Your task to perform on an android device: change text size in settings app Image 0: 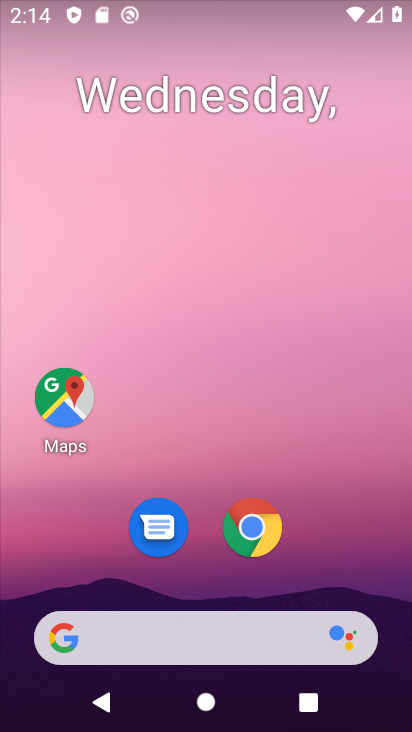
Step 0: drag from (320, 48) to (267, 33)
Your task to perform on an android device: change text size in settings app Image 1: 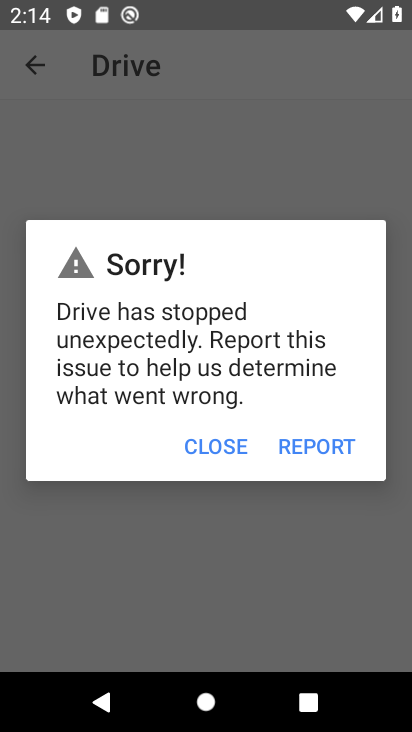
Step 1: press home button
Your task to perform on an android device: change text size in settings app Image 2: 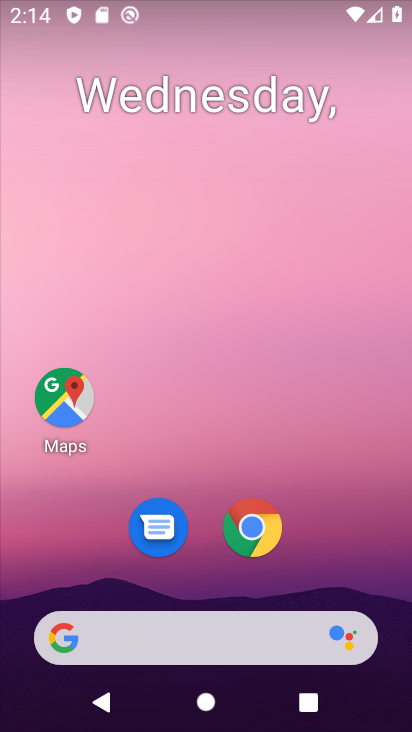
Step 2: drag from (334, 566) to (276, 268)
Your task to perform on an android device: change text size in settings app Image 3: 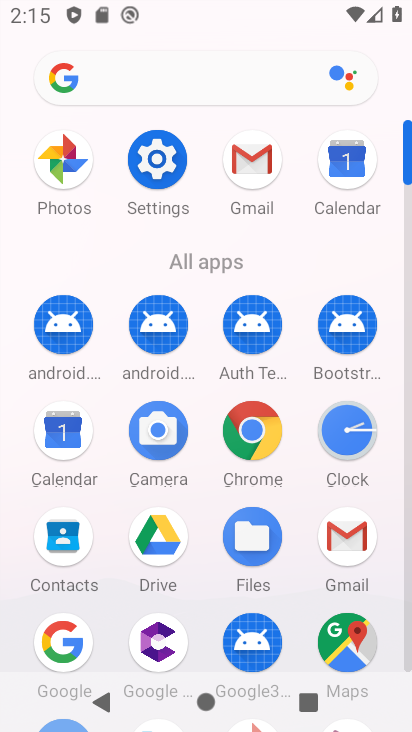
Step 3: click (157, 159)
Your task to perform on an android device: change text size in settings app Image 4: 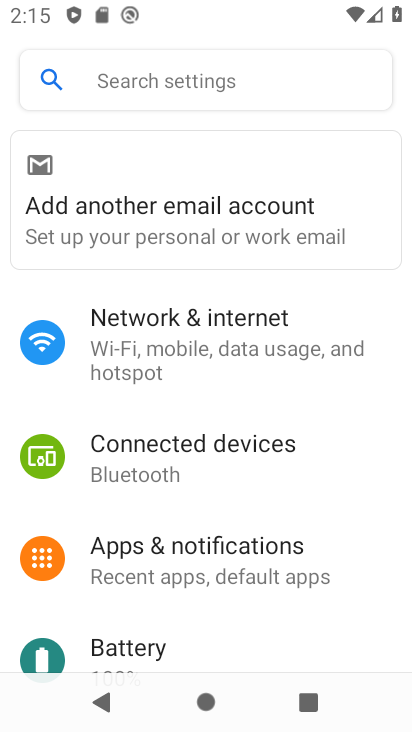
Step 4: drag from (190, 405) to (210, 287)
Your task to perform on an android device: change text size in settings app Image 5: 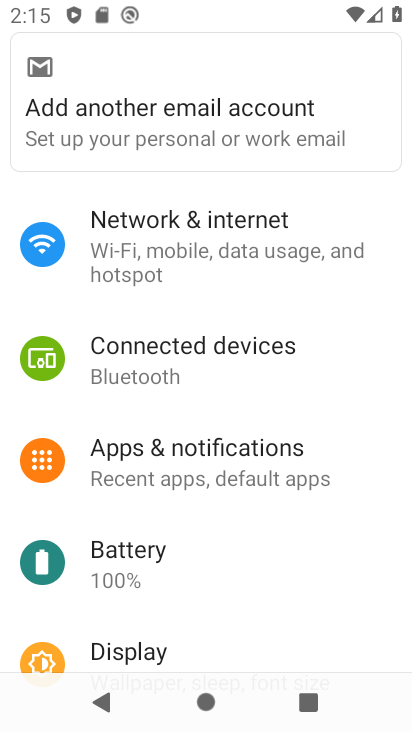
Step 5: drag from (175, 409) to (207, 311)
Your task to perform on an android device: change text size in settings app Image 6: 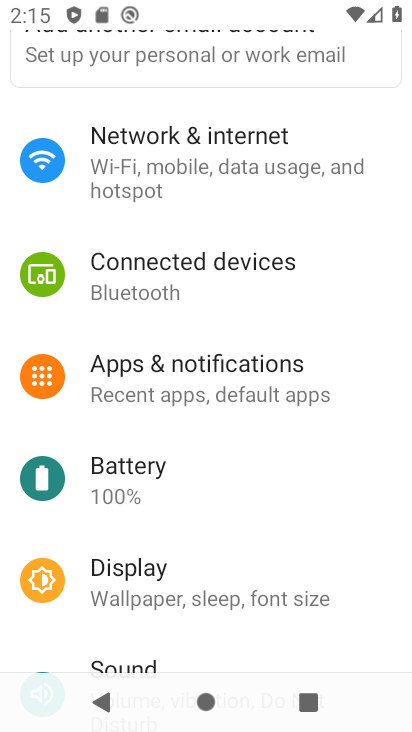
Step 6: drag from (175, 428) to (217, 338)
Your task to perform on an android device: change text size in settings app Image 7: 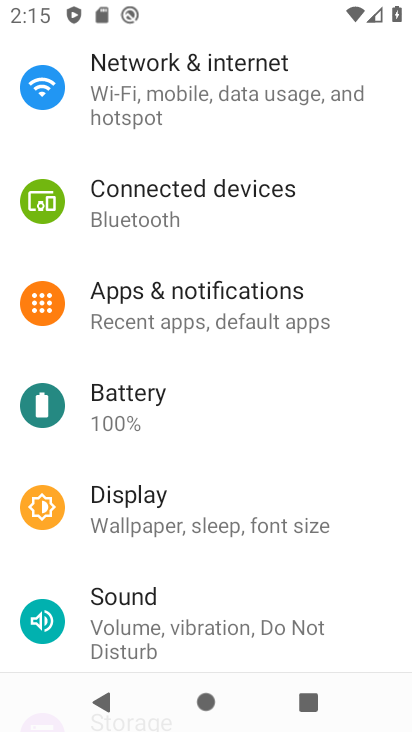
Step 7: drag from (145, 448) to (248, 329)
Your task to perform on an android device: change text size in settings app Image 8: 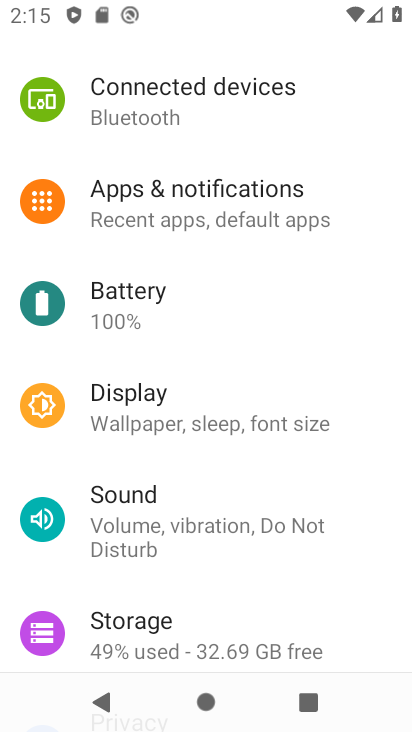
Step 8: drag from (155, 456) to (244, 344)
Your task to perform on an android device: change text size in settings app Image 9: 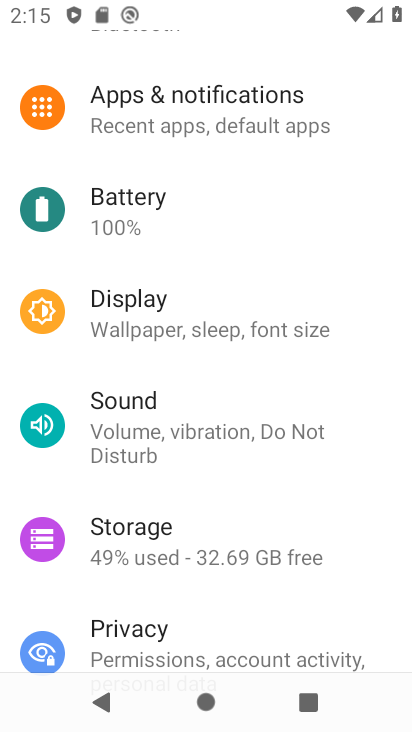
Step 9: drag from (151, 485) to (233, 368)
Your task to perform on an android device: change text size in settings app Image 10: 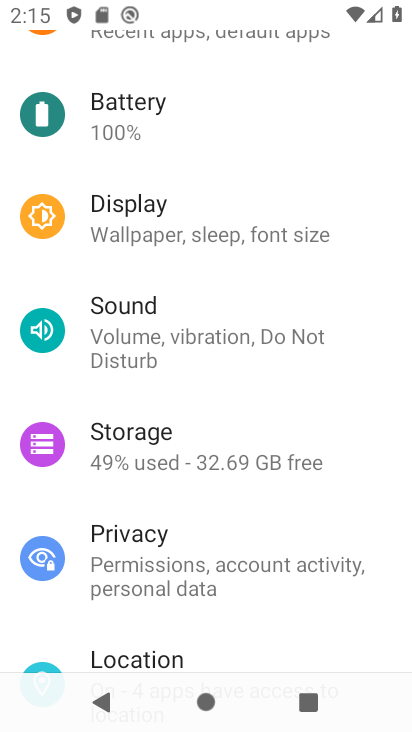
Step 10: drag from (145, 496) to (229, 392)
Your task to perform on an android device: change text size in settings app Image 11: 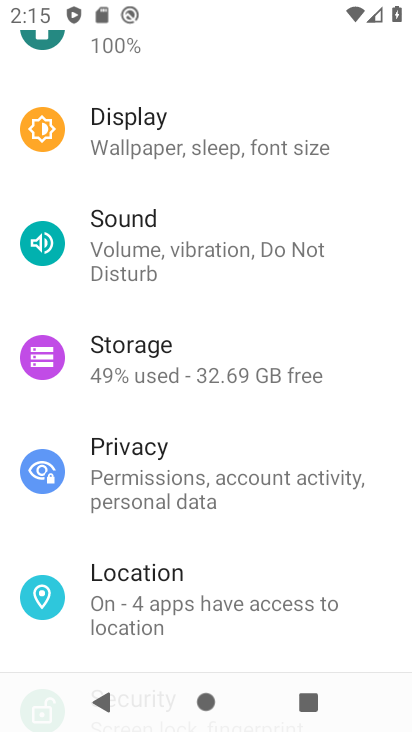
Step 11: click (209, 334)
Your task to perform on an android device: change text size in settings app Image 12: 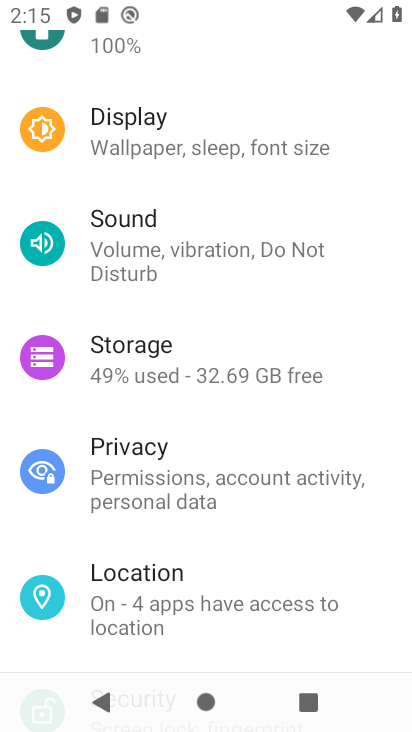
Step 12: drag from (128, 538) to (200, 361)
Your task to perform on an android device: change text size in settings app Image 13: 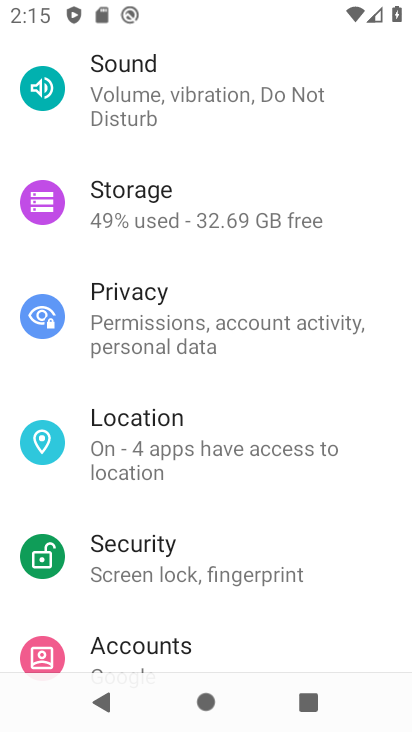
Step 13: drag from (111, 519) to (191, 356)
Your task to perform on an android device: change text size in settings app Image 14: 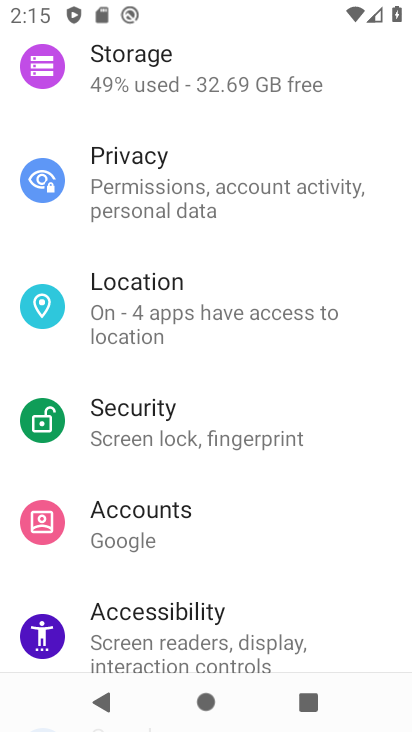
Step 14: drag from (154, 477) to (194, 338)
Your task to perform on an android device: change text size in settings app Image 15: 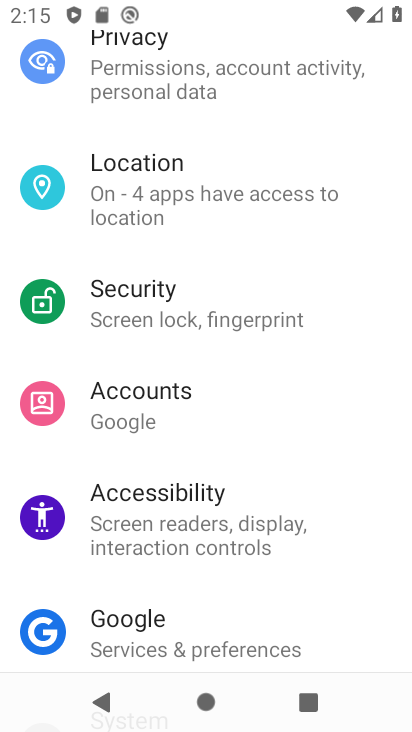
Step 15: click (179, 494)
Your task to perform on an android device: change text size in settings app Image 16: 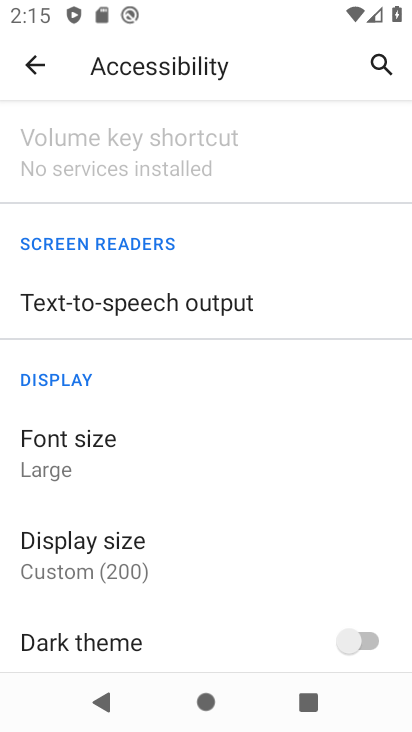
Step 16: click (69, 432)
Your task to perform on an android device: change text size in settings app Image 17: 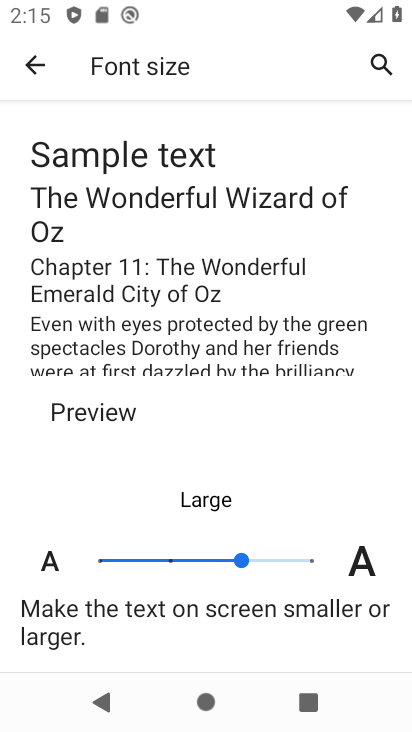
Step 17: click (166, 560)
Your task to perform on an android device: change text size in settings app Image 18: 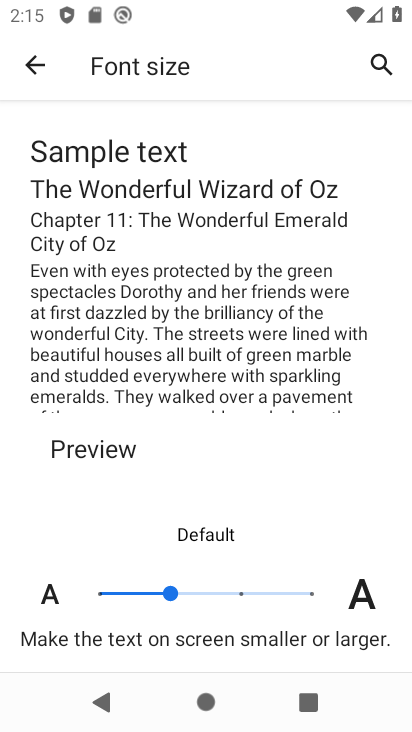
Step 18: task complete